Your task to perform on an android device: search for starred emails in the gmail app Image 0: 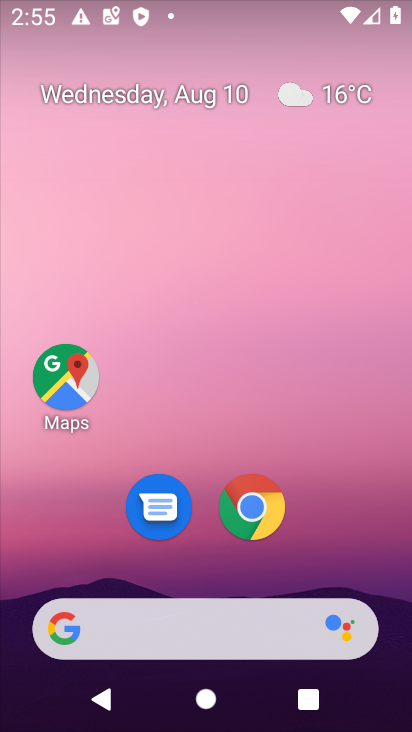
Step 0: drag from (340, 500) to (243, 0)
Your task to perform on an android device: search for starred emails in the gmail app Image 1: 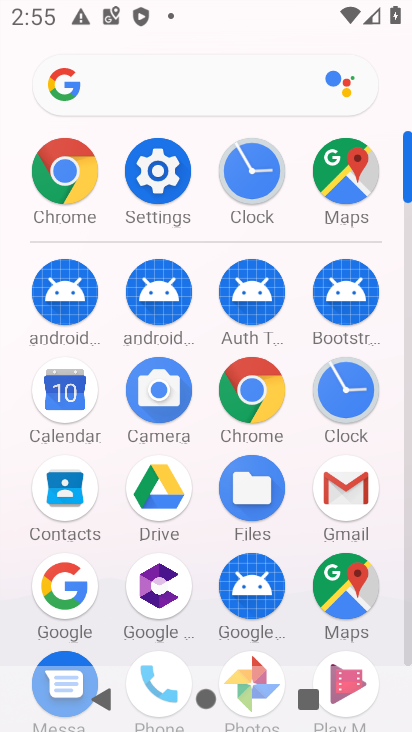
Step 1: click (347, 499)
Your task to perform on an android device: search for starred emails in the gmail app Image 2: 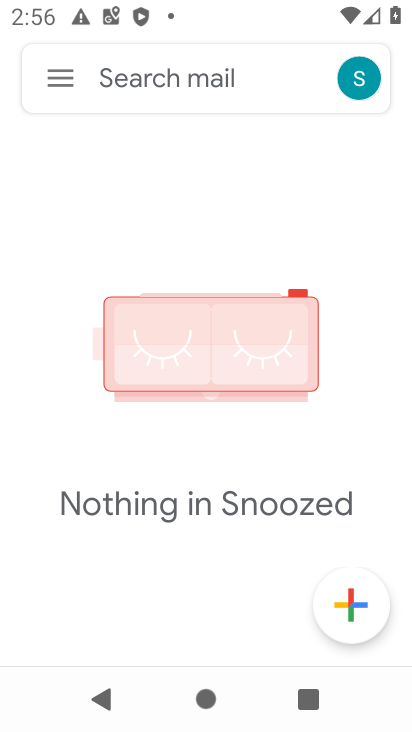
Step 2: click (66, 70)
Your task to perform on an android device: search for starred emails in the gmail app Image 3: 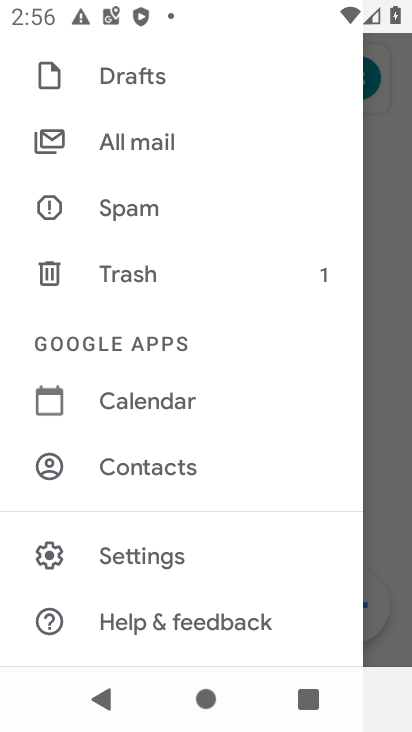
Step 3: drag from (249, 87) to (211, 589)
Your task to perform on an android device: search for starred emails in the gmail app Image 4: 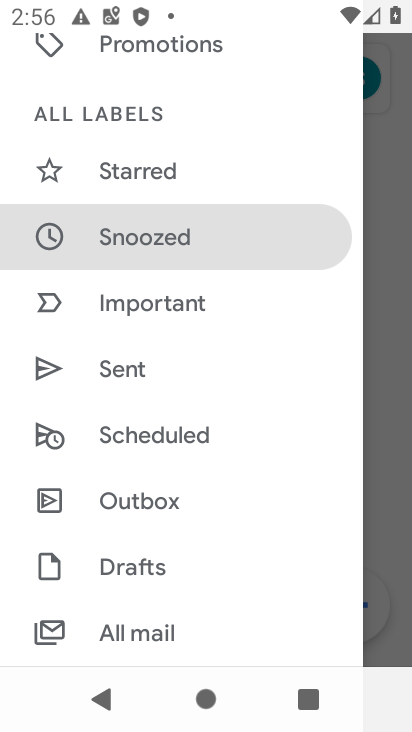
Step 4: click (150, 161)
Your task to perform on an android device: search for starred emails in the gmail app Image 5: 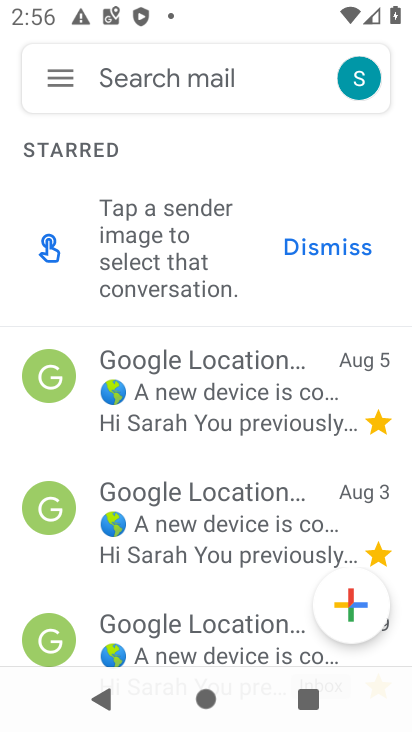
Step 5: task complete